Your task to perform on an android device: toggle translation in the chrome app Image 0: 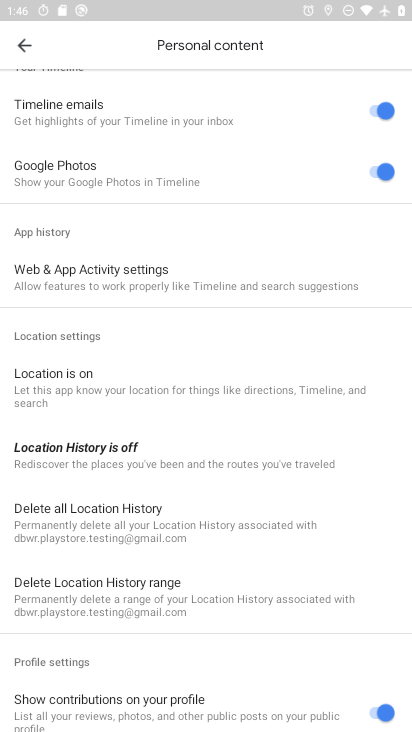
Step 0: press home button
Your task to perform on an android device: toggle translation in the chrome app Image 1: 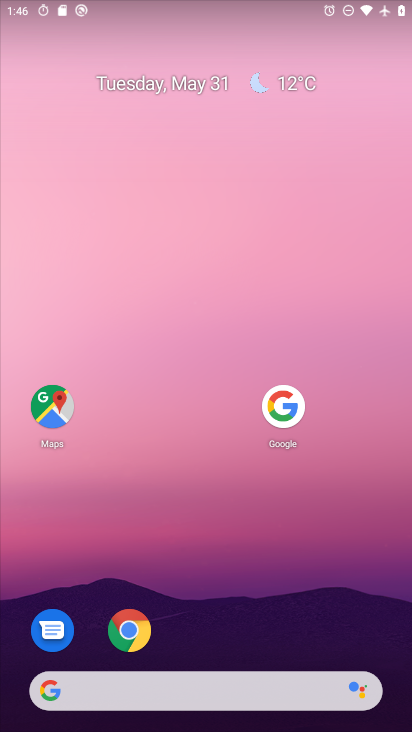
Step 1: click (127, 637)
Your task to perform on an android device: toggle translation in the chrome app Image 2: 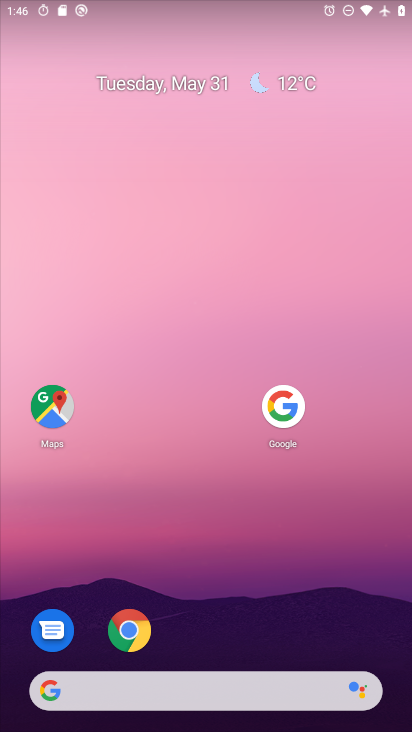
Step 2: click (133, 639)
Your task to perform on an android device: toggle translation in the chrome app Image 3: 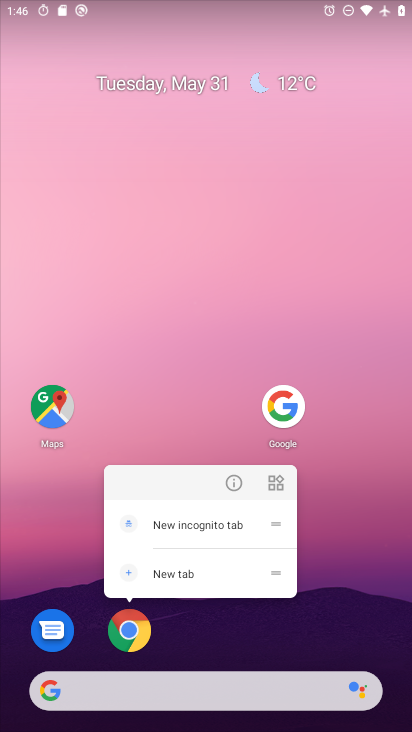
Step 3: click (132, 636)
Your task to perform on an android device: toggle translation in the chrome app Image 4: 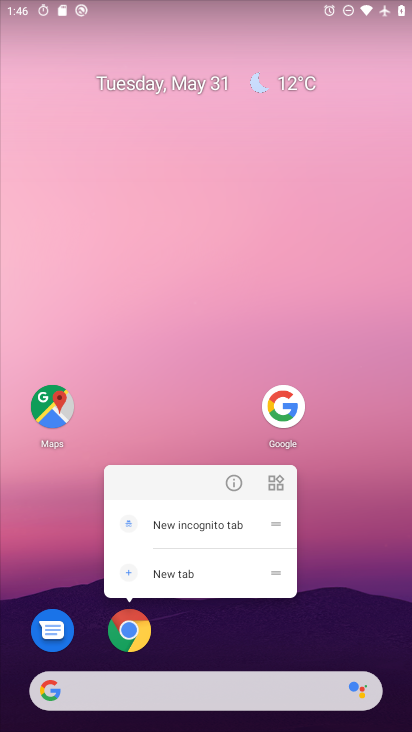
Step 4: click (133, 634)
Your task to perform on an android device: toggle translation in the chrome app Image 5: 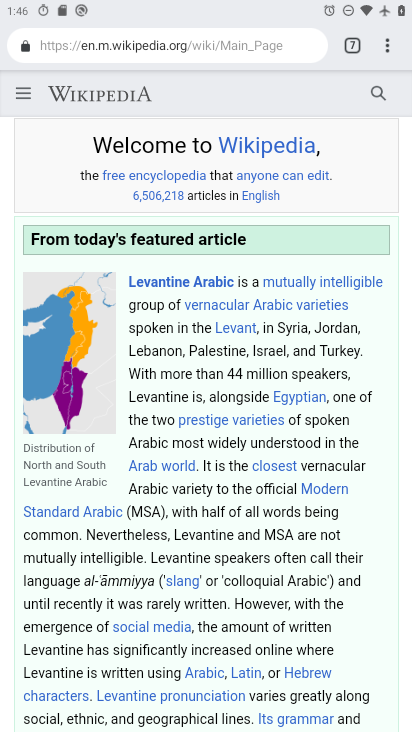
Step 5: drag from (389, 40) to (221, 606)
Your task to perform on an android device: toggle translation in the chrome app Image 6: 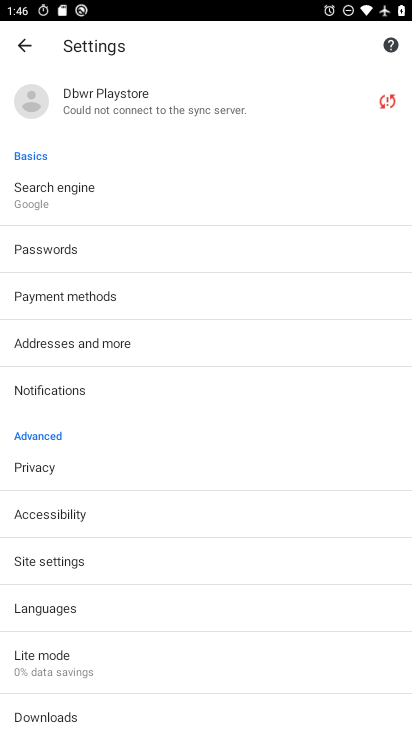
Step 6: click (52, 602)
Your task to perform on an android device: toggle translation in the chrome app Image 7: 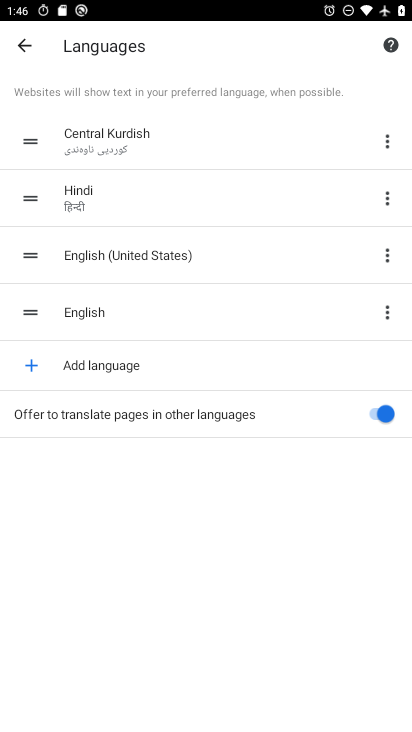
Step 7: click (376, 414)
Your task to perform on an android device: toggle translation in the chrome app Image 8: 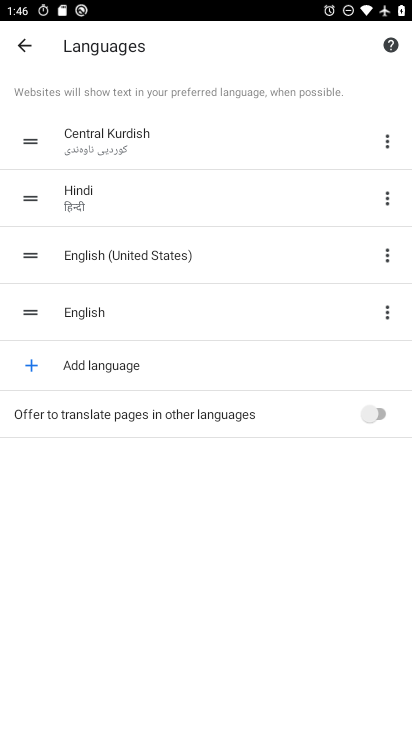
Step 8: task complete